Your task to perform on an android device: turn off airplane mode Image 0: 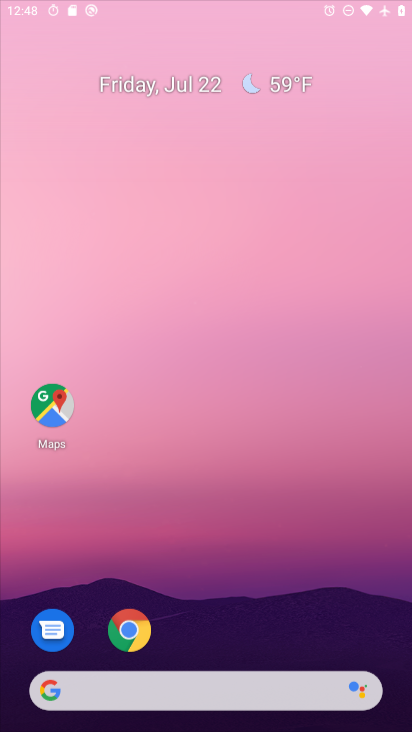
Step 0: press home button
Your task to perform on an android device: turn off airplane mode Image 1: 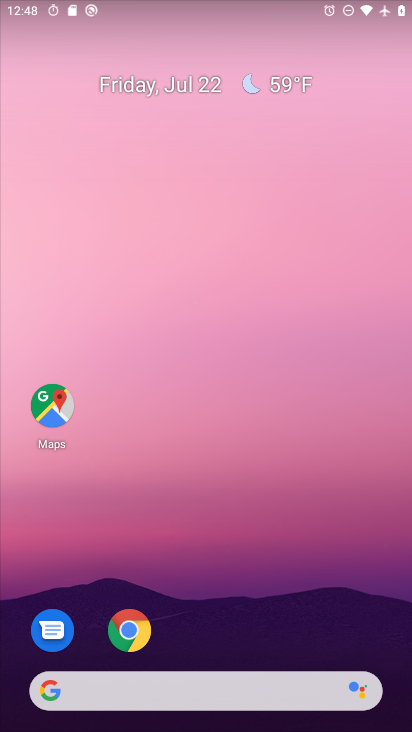
Step 1: drag from (246, 4) to (230, 420)
Your task to perform on an android device: turn off airplane mode Image 2: 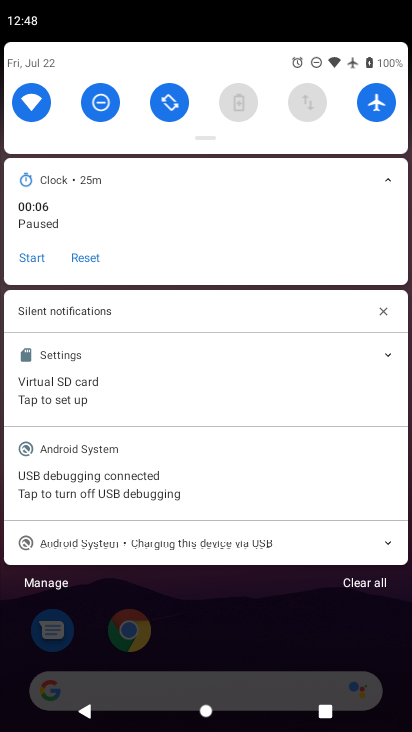
Step 2: click (383, 93)
Your task to perform on an android device: turn off airplane mode Image 3: 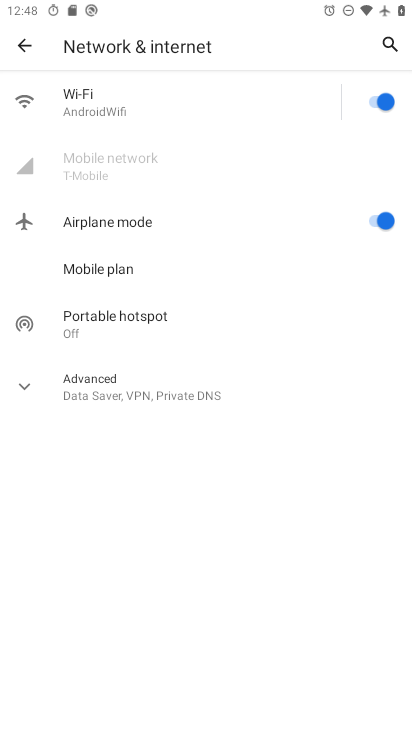
Step 3: click (389, 217)
Your task to perform on an android device: turn off airplane mode Image 4: 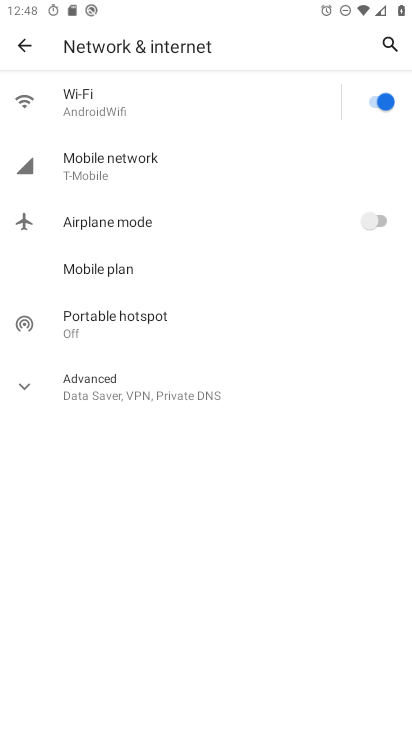
Step 4: task complete